Your task to perform on an android device: What's the weather? Image 0: 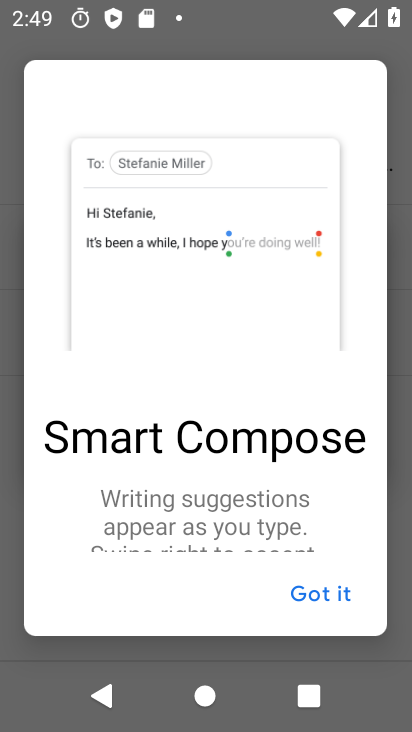
Step 0: press home button
Your task to perform on an android device: What's the weather? Image 1: 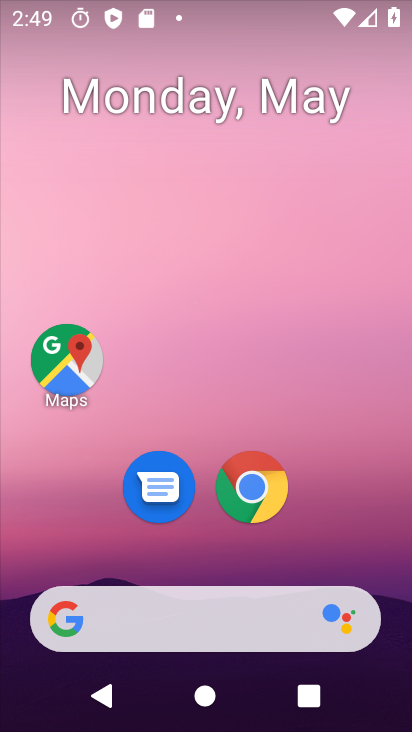
Step 1: click (171, 596)
Your task to perform on an android device: What's the weather? Image 2: 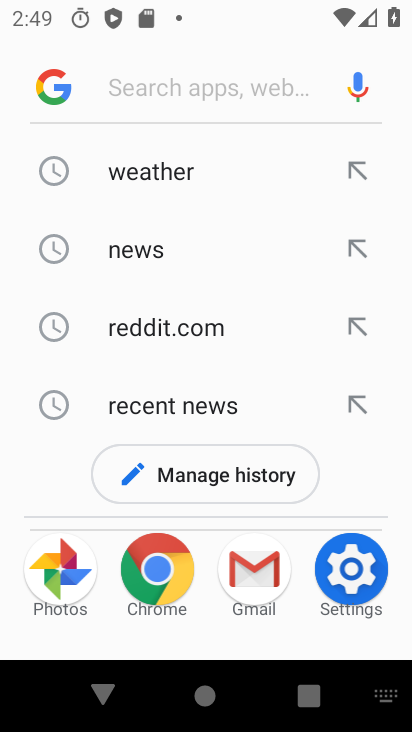
Step 2: click (158, 169)
Your task to perform on an android device: What's the weather? Image 3: 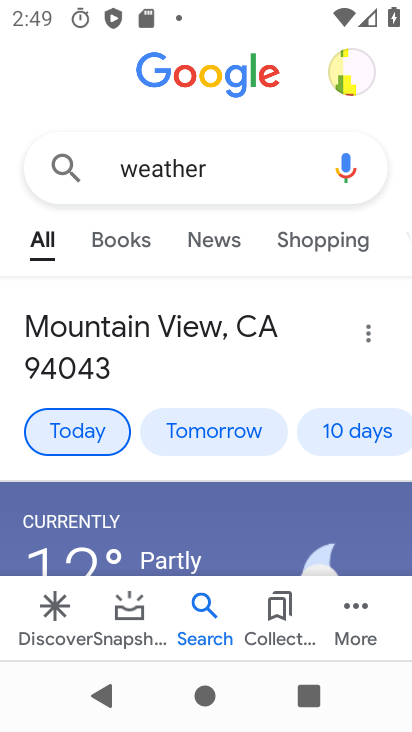
Step 3: task complete